Your task to perform on an android device: open the mobile data screen to see how much data has been used Image 0: 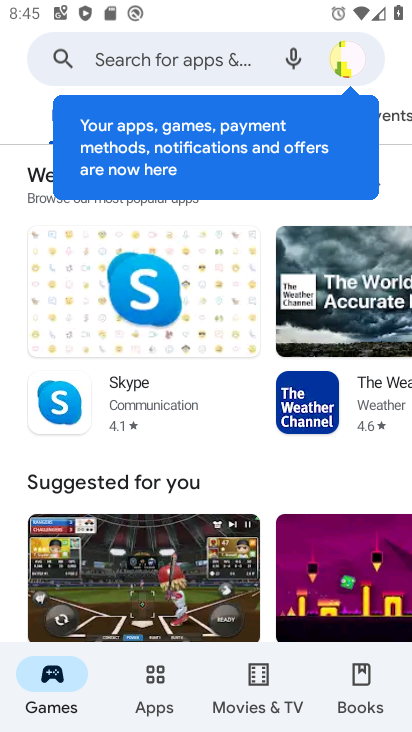
Step 0: press home button
Your task to perform on an android device: open the mobile data screen to see how much data has been used Image 1: 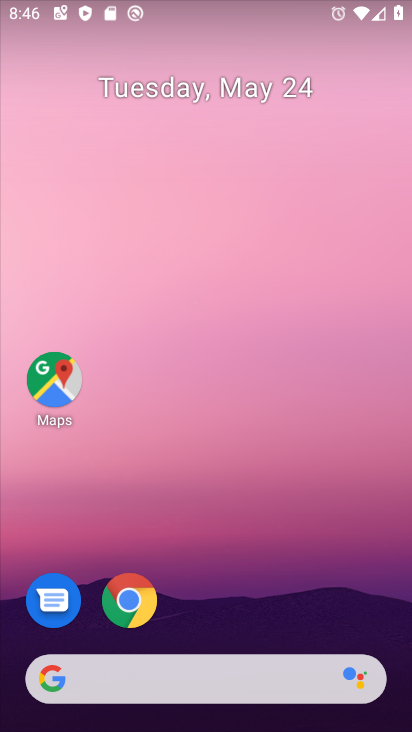
Step 1: drag from (190, 712) to (167, 118)
Your task to perform on an android device: open the mobile data screen to see how much data has been used Image 2: 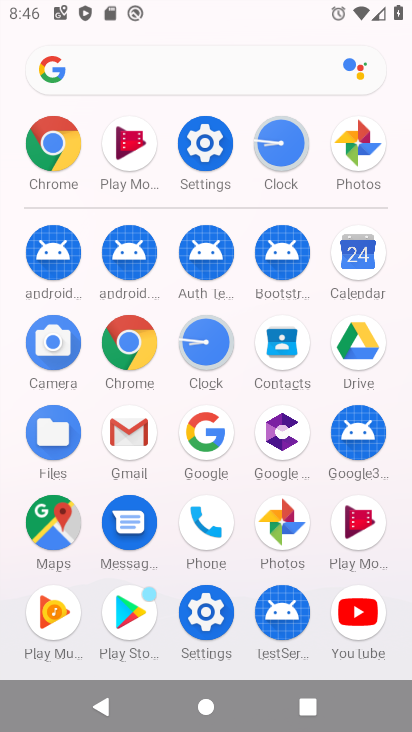
Step 2: click (203, 144)
Your task to perform on an android device: open the mobile data screen to see how much data has been used Image 3: 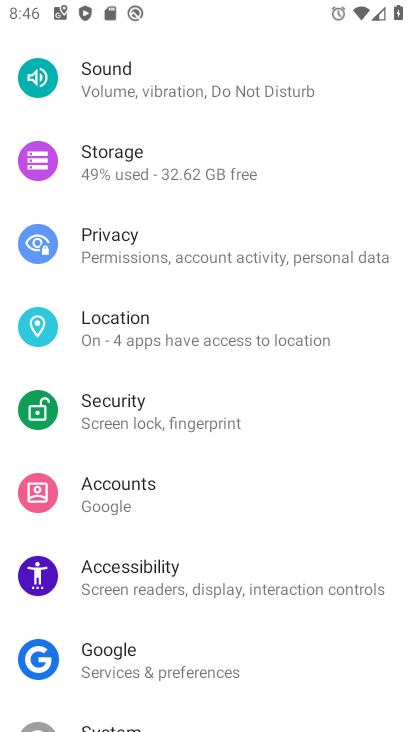
Step 3: drag from (214, 276) to (205, 540)
Your task to perform on an android device: open the mobile data screen to see how much data has been used Image 4: 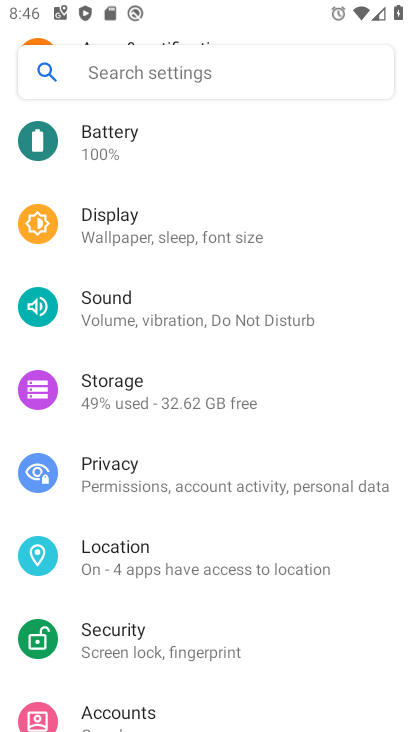
Step 4: drag from (204, 167) to (204, 539)
Your task to perform on an android device: open the mobile data screen to see how much data has been used Image 5: 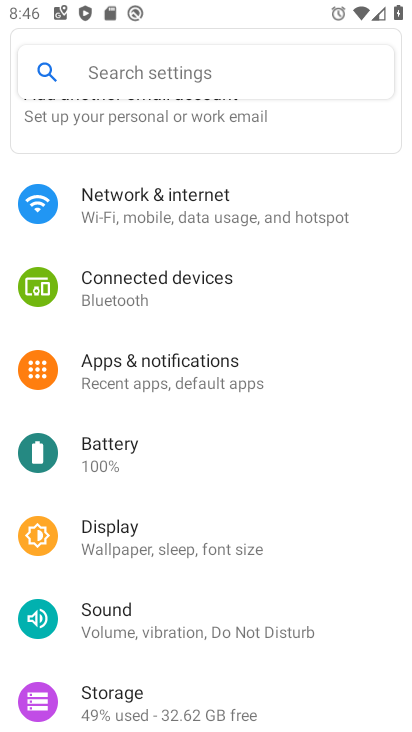
Step 5: click (148, 206)
Your task to perform on an android device: open the mobile data screen to see how much data has been used Image 6: 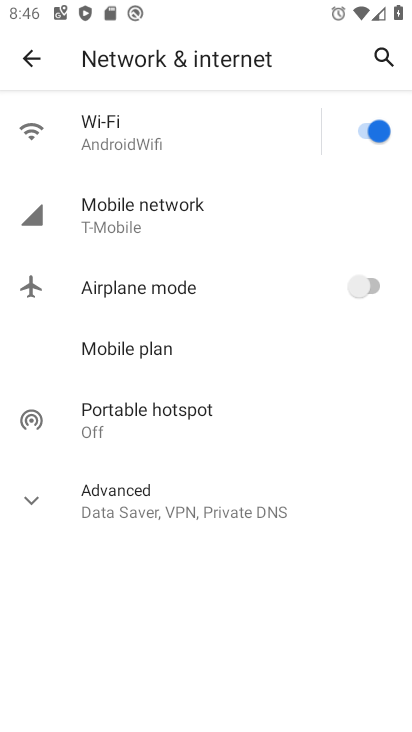
Step 6: click (124, 214)
Your task to perform on an android device: open the mobile data screen to see how much data has been used Image 7: 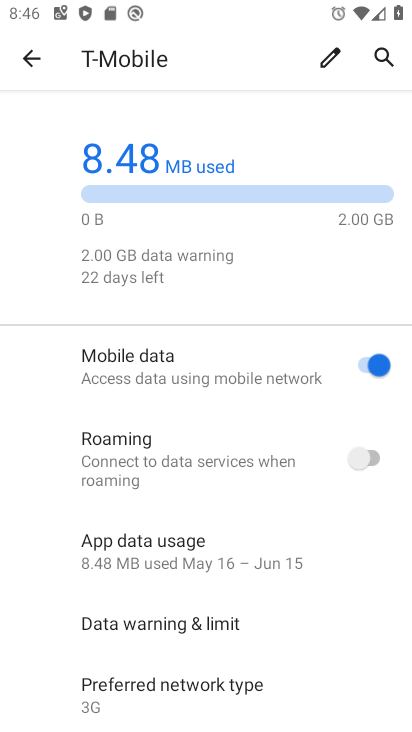
Step 7: click (145, 543)
Your task to perform on an android device: open the mobile data screen to see how much data has been used Image 8: 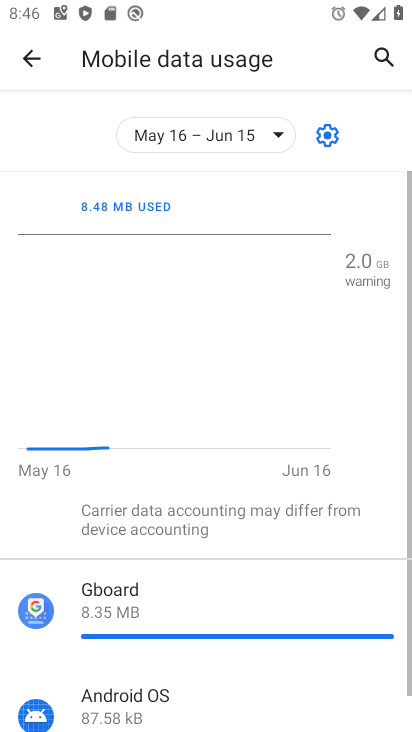
Step 8: task complete